Your task to perform on an android device: toggle sleep mode Image 0: 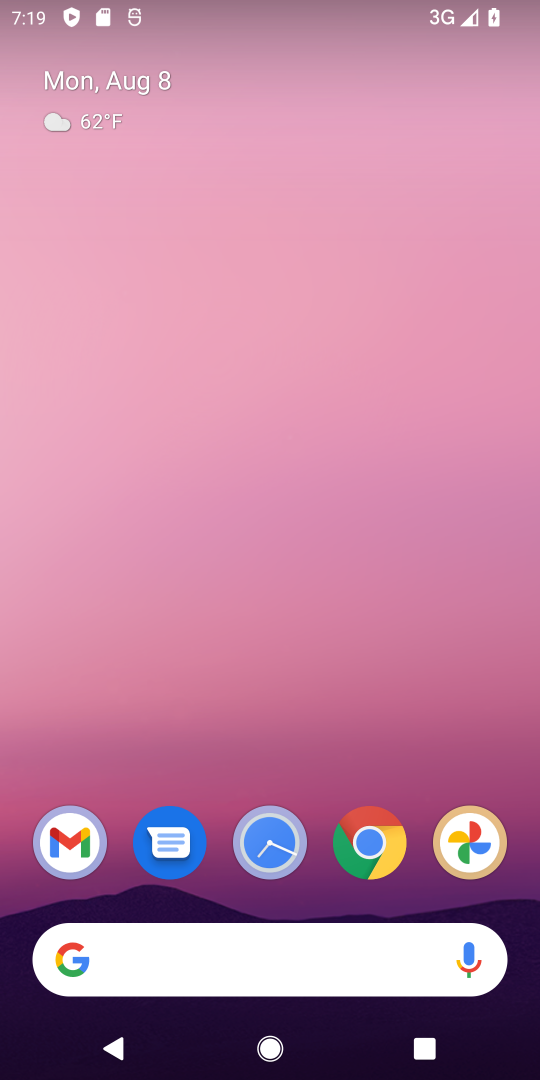
Step 0: drag from (310, 908) to (200, 31)
Your task to perform on an android device: toggle sleep mode Image 1: 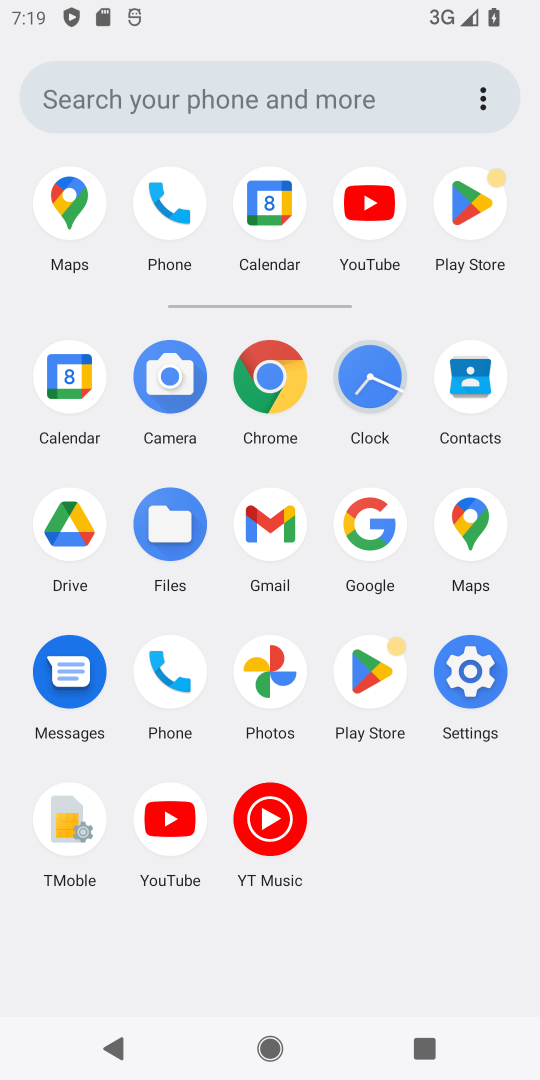
Step 1: click (454, 689)
Your task to perform on an android device: toggle sleep mode Image 2: 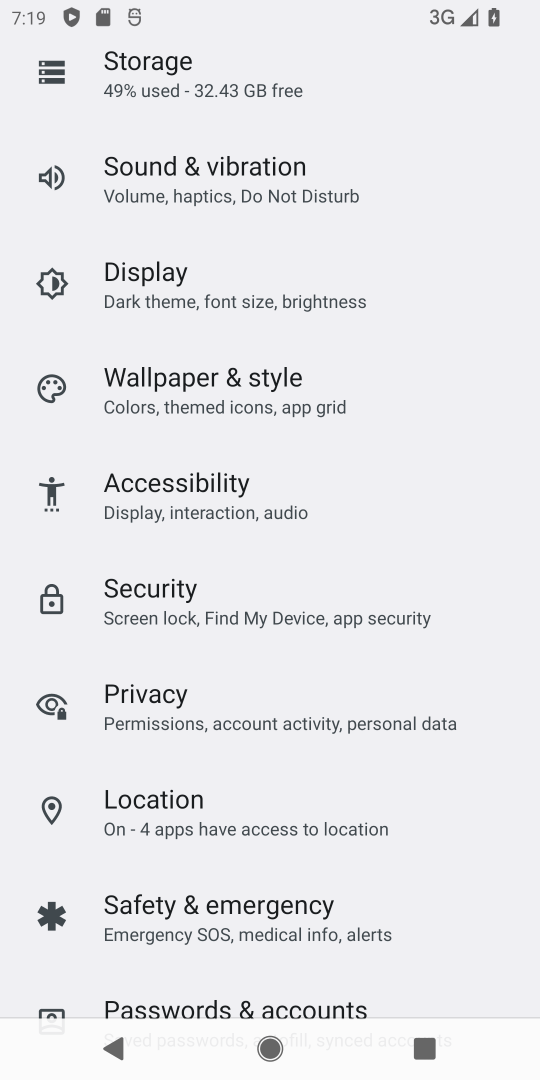
Step 2: click (127, 258)
Your task to perform on an android device: toggle sleep mode Image 3: 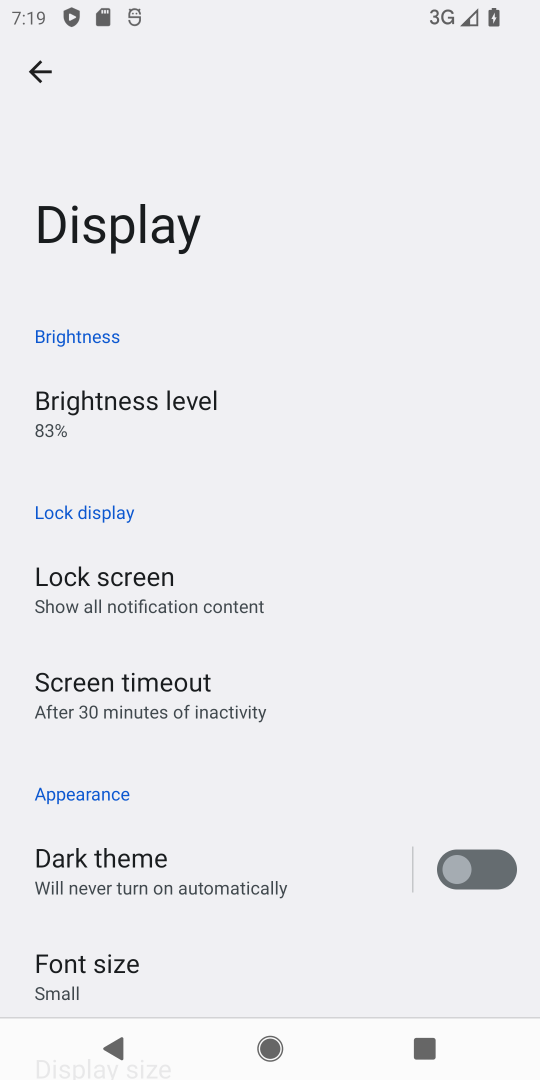
Step 3: task complete